Your task to perform on an android device: set default search engine in the chrome app Image 0: 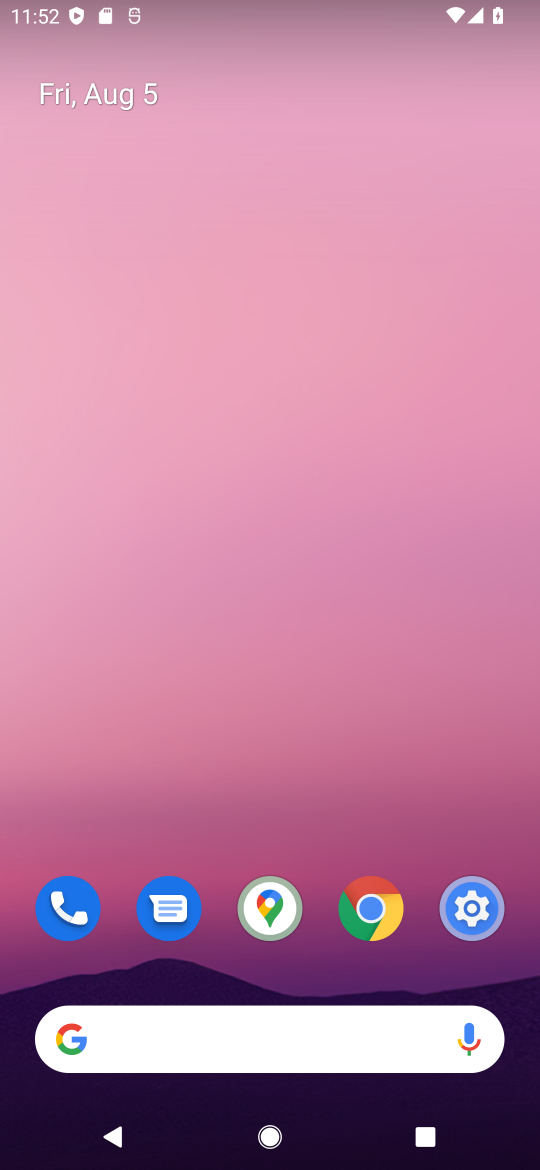
Step 0: drag from (293, 967) to (307, 137)
Your task to perform on an android device: set default search engine in the chrome app Image 1: 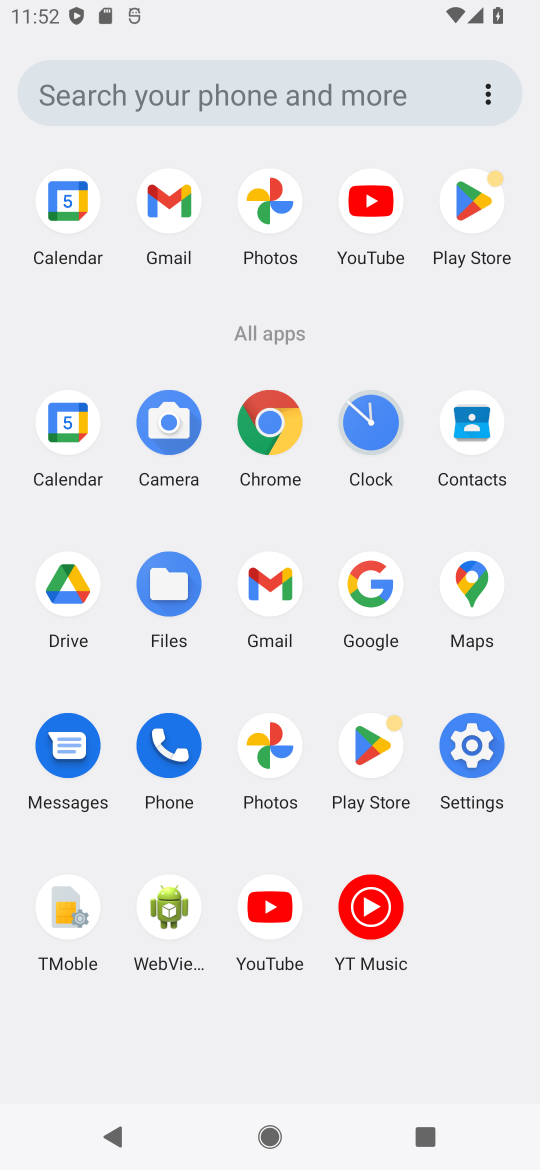
Step 1: click (273, 418)
Your task to perform on an android device: set default search engine in the chrome app Image 2: 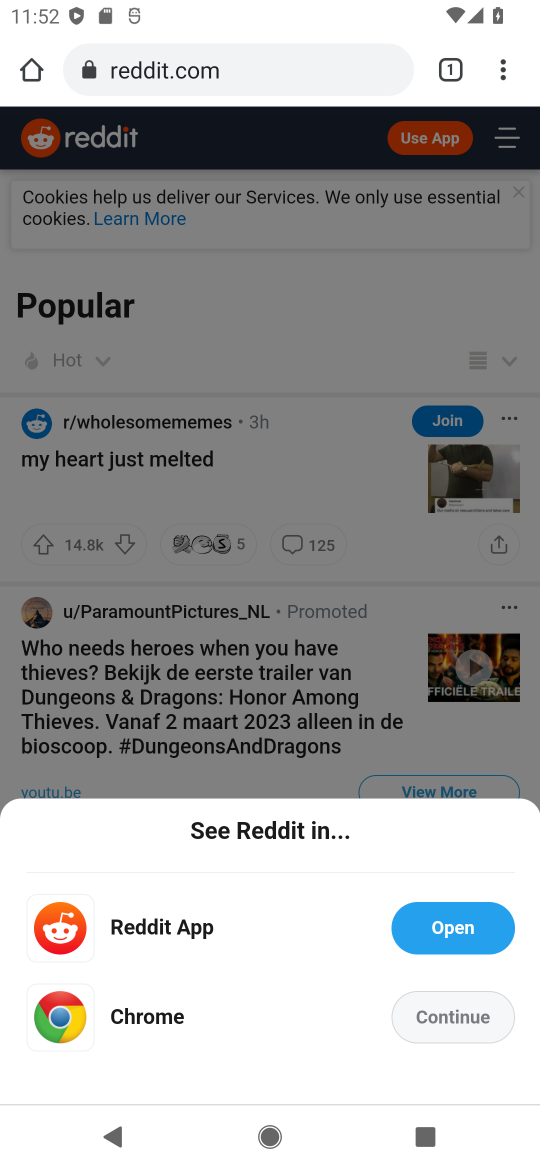
Step 2: drag from (500, 68) to (326, 788)
Your task to perform on an android device: set default search engine in the chrome app Image 3: 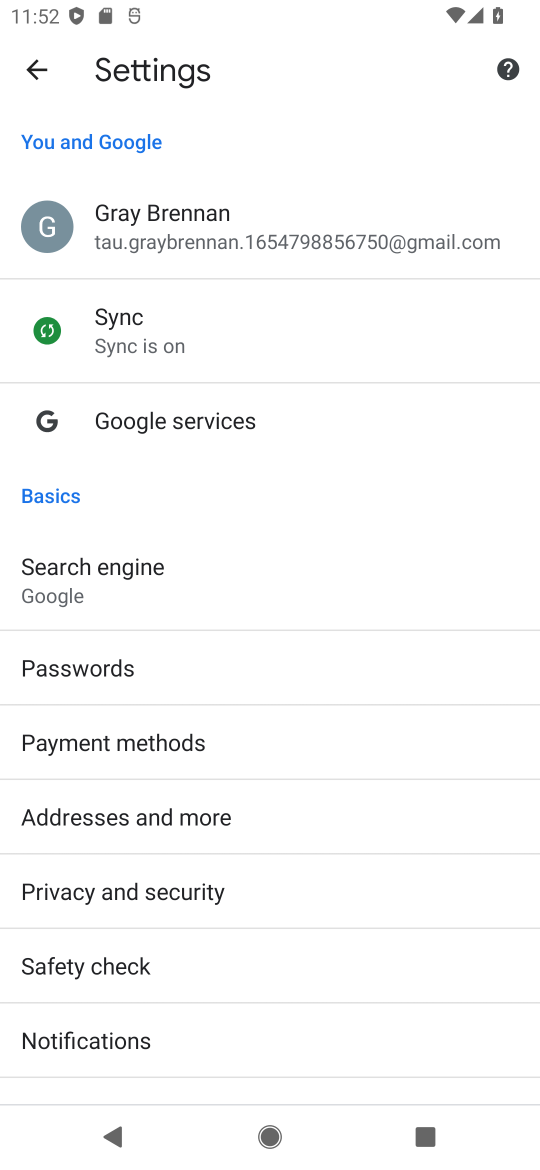
Step 3: click (256, 583)
Your task to perform on an android device: set default search engine in the chrome app Image 4: 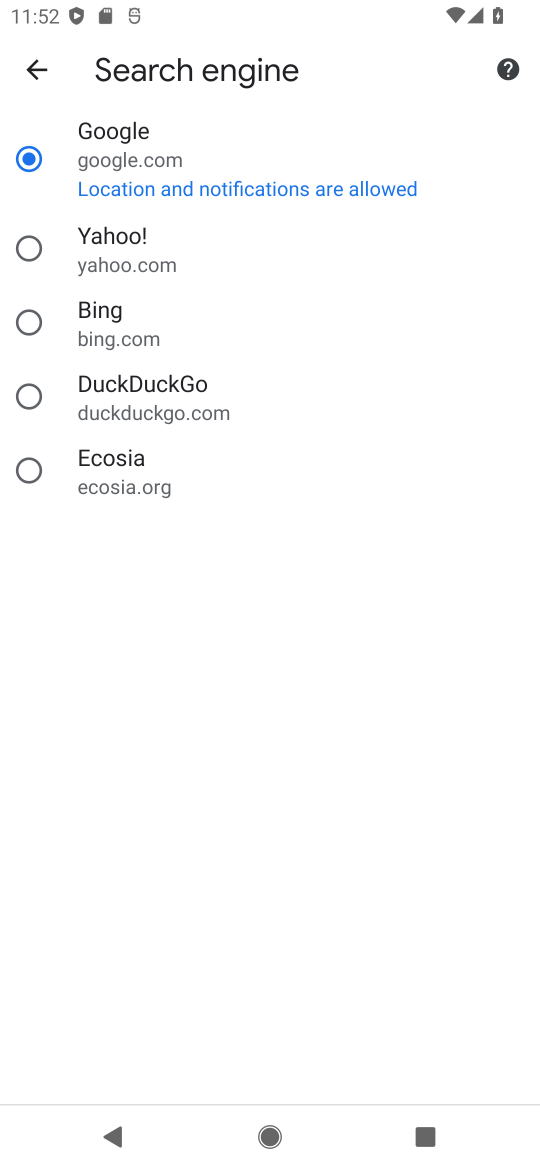
Step 4: task complete